Your task to perform on an android device: delete a single message in the gmail app Image 0: 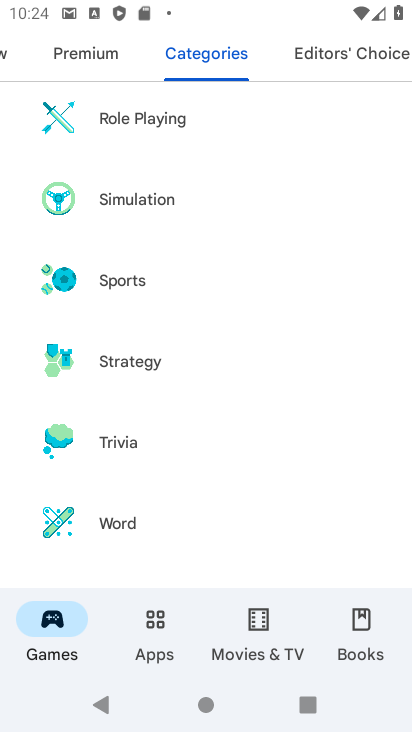
Step 0: press home button
Your task to perform on an android device: delete a single message in the gmail app Image 1: 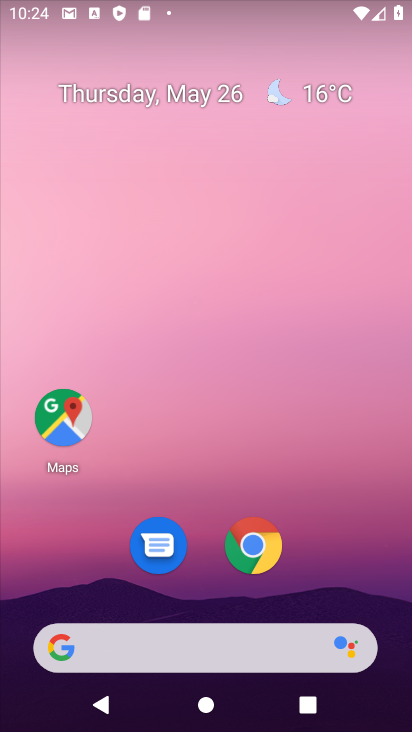
Step 1: drag from (312, 593) to (283, 258)
Your task to perform on an android device: delete a single message in the gmail app Image 2: 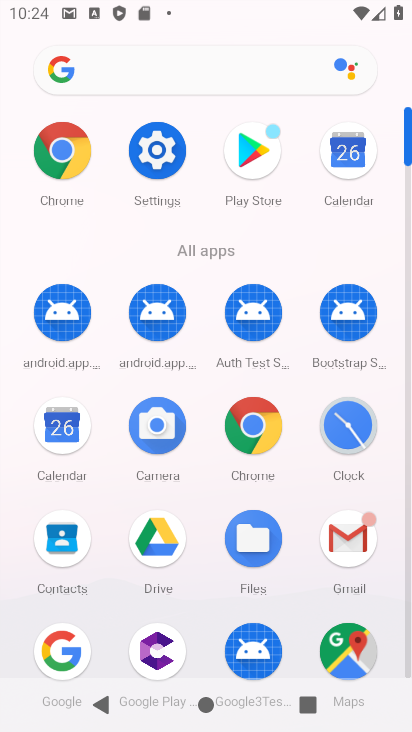
Step 2: click (347, 527)
Your task to perform on an android device: delete a single message in the gmail app Image 3: 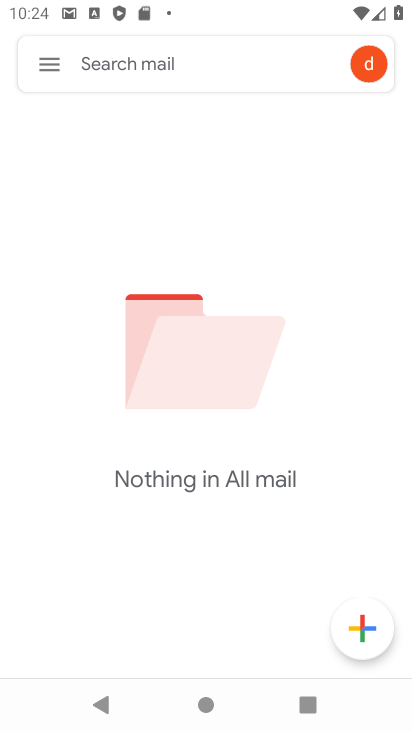
Step 3: click (30, 75)
Your task to perform on an android device: delete a single message in the gmail app Image 4: 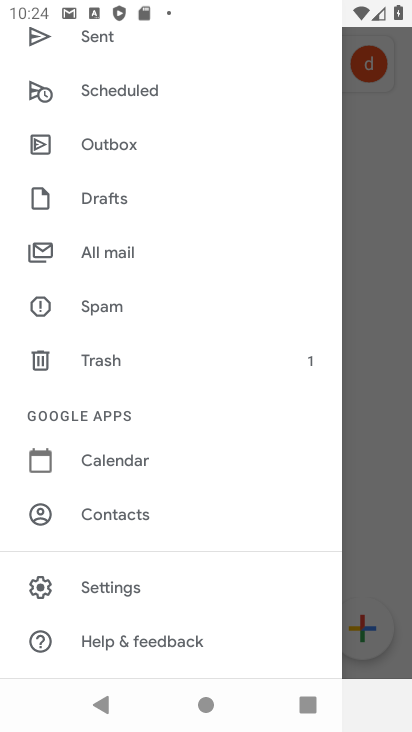
Step 4: click (98, 254)
Your task to perform on an android device: delete a single message in the gmail app Image 5: 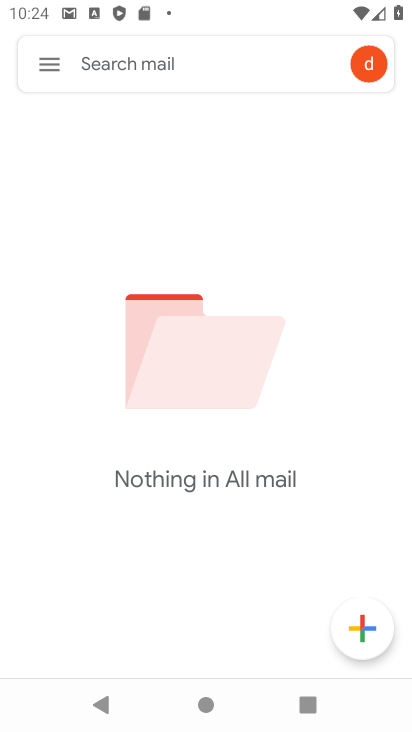
Step 5: task complete